Your task to perform on an android device: Go to sound settings Image 0: 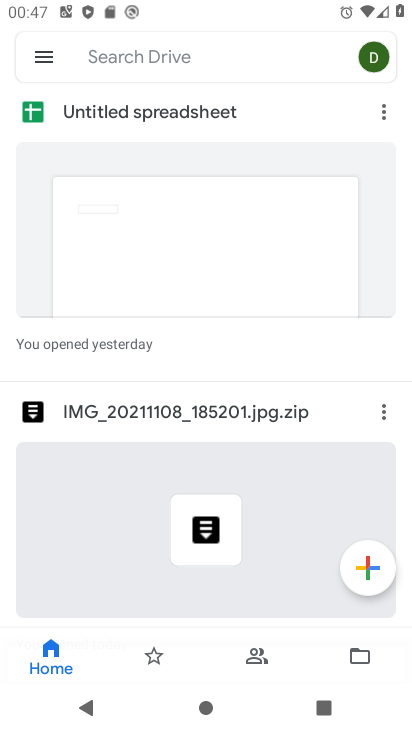
Step 0: press home button
Your task to perform on an android device: Go to sound settings Image 1: 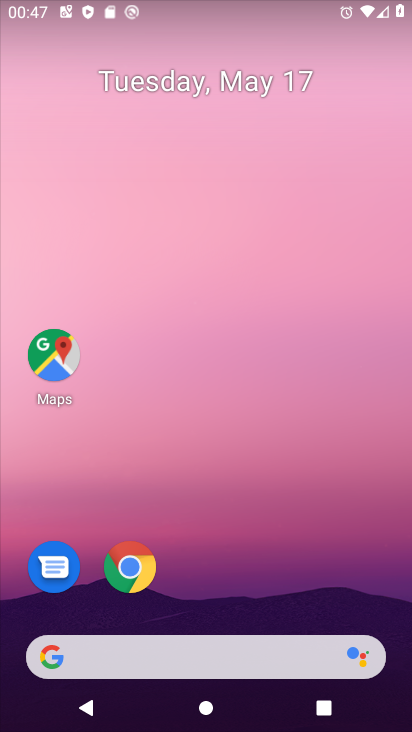
Step 1: drag from (227, 530) to (143, 149)
Your task to perform on an android device: Go to sound settings Image 2: 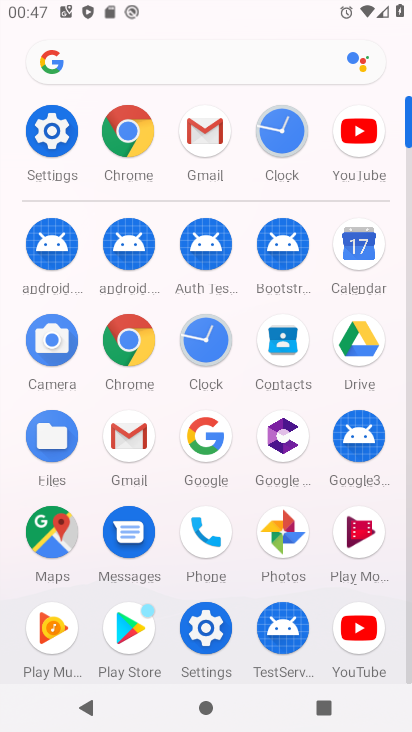
Step 2: click (58, 127)
Your task to perform on an android device: Go to sound settings Image 3: 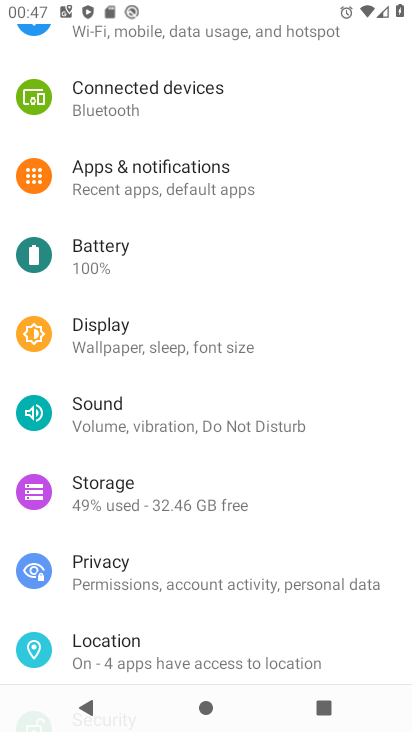
Step 3: click (98, 415)
Your task to perform on an android device: Go to sound settings Image 4: 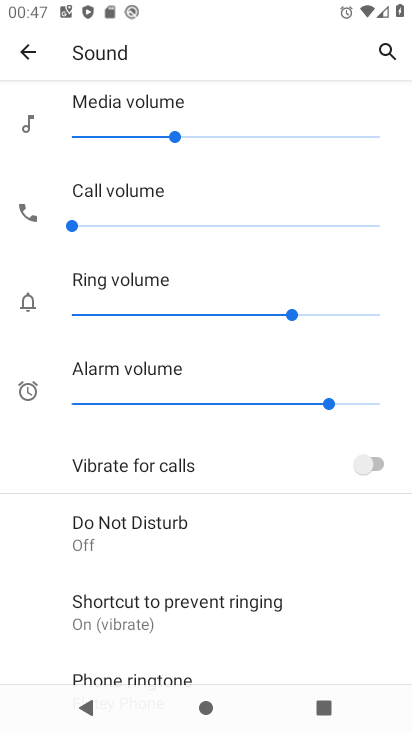
Step 4: task complete